Your task to perform on an android device: find snoozed emails in the gmail app Image 0: 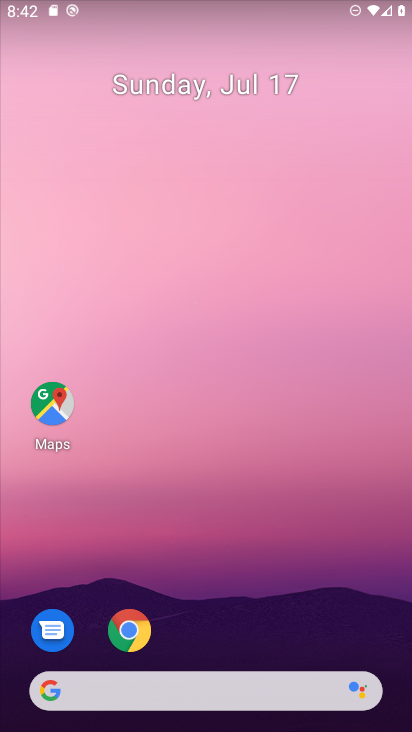
Step 0: drag from (280, 654) to (305, 226)
Your task to perform on an android device: find snoozed emails in the gmail app Image 1: 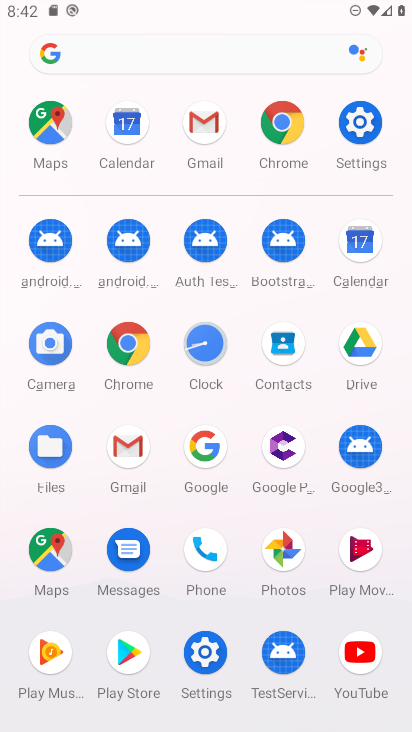
Step 1: click (133, 441)
Your task to perform on an android device: find snoozed emails in the gmail app Image 2: 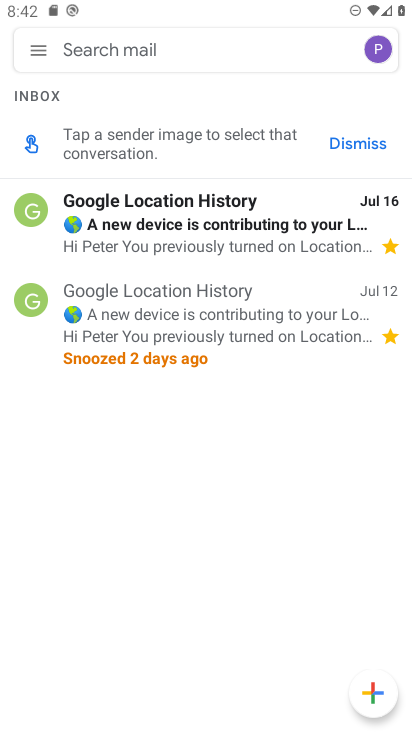
Step 2: click (38, 48)
Your task to perform on an android device: find snoozed emails in the gmail app Image 3: 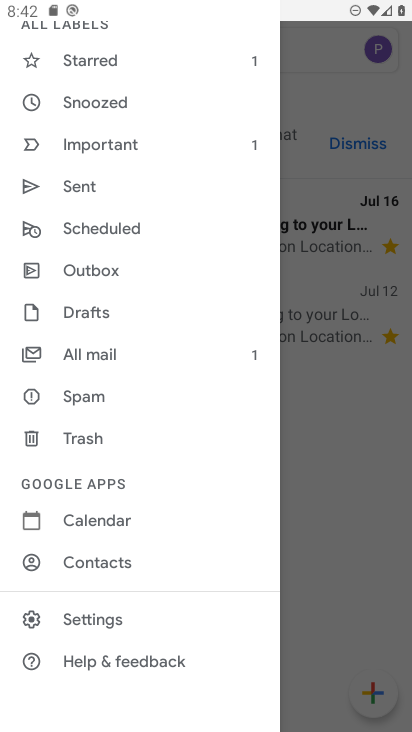
Step 3: click (93, 104)
Your task to perform on an android device: find snoozed emails in the gmail app Image 4: 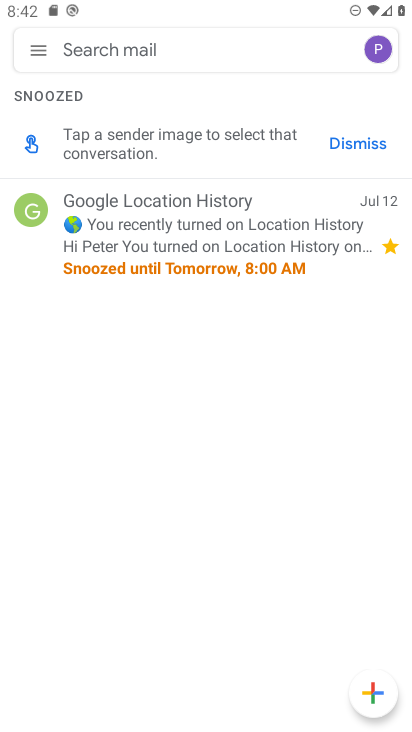
Step 4: task complete